Your task to perform on an android device: turn on improve location accuracy Image 0: 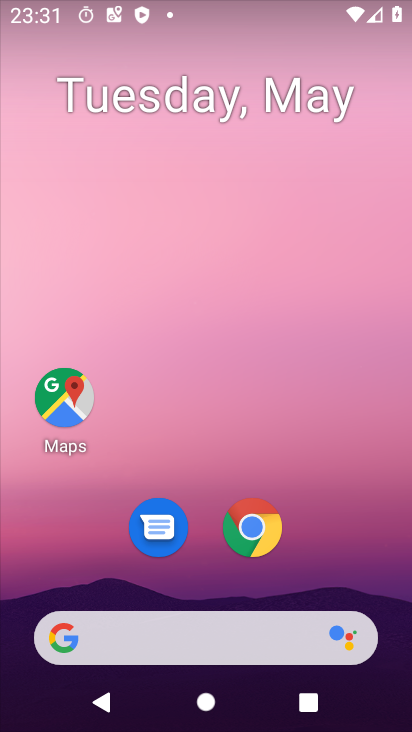
Step 0: drag from (211, 570) to (212, 240)
Your task to perform on an android device: turn on improve location accuracy Image 1: 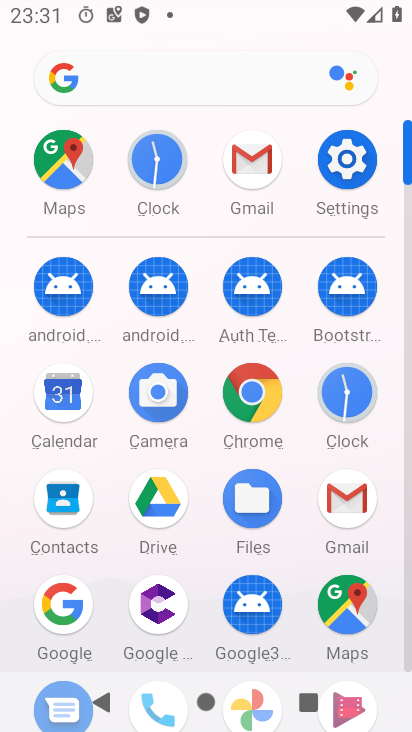
Step 1: click (338, 178)
Your task to perform on an android device: turn on improve location accuracy Image 2: 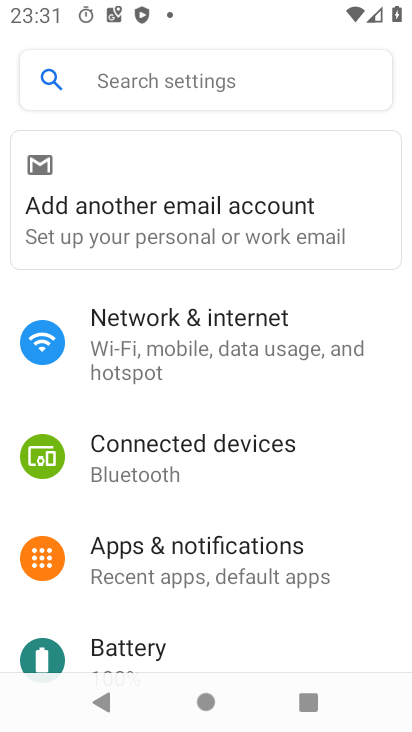
Step 2: drag from (196, 522) to (6, 6)
Your task to perform on an android device: turn on improve location accuracy Image 3: 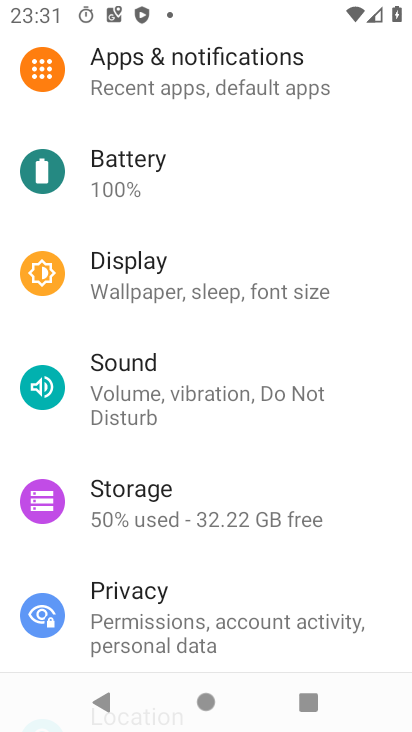
Step 3: drag from (183, 521) to (235, 82)
Your task to perform on an android device: turn on improve location accuracy Image 4: 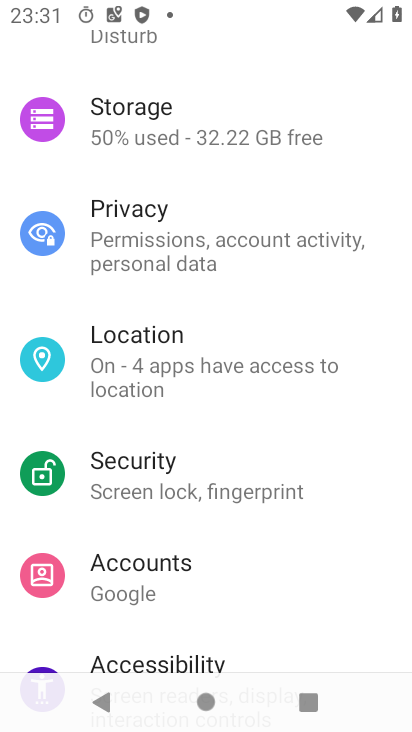
Step 4: drag from (315, 611) to (342, 140)
Your task to perform on an android device: turn on improve location accuracy Image 5: 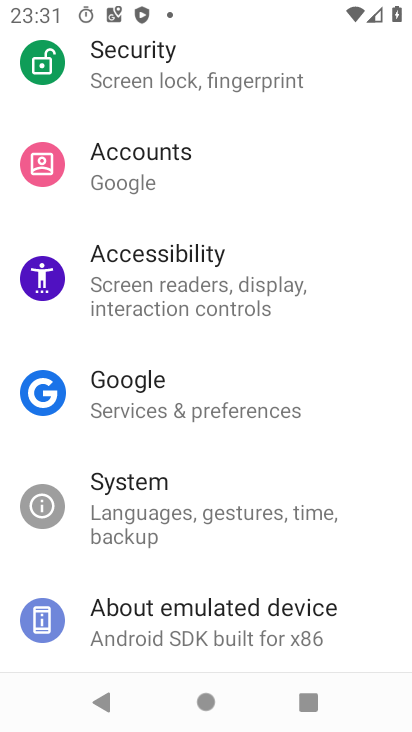
Step 5: drag from (242, 239) to (260, 655)
Your task to perform on an android device: turn on improve location accuracy Image 6: 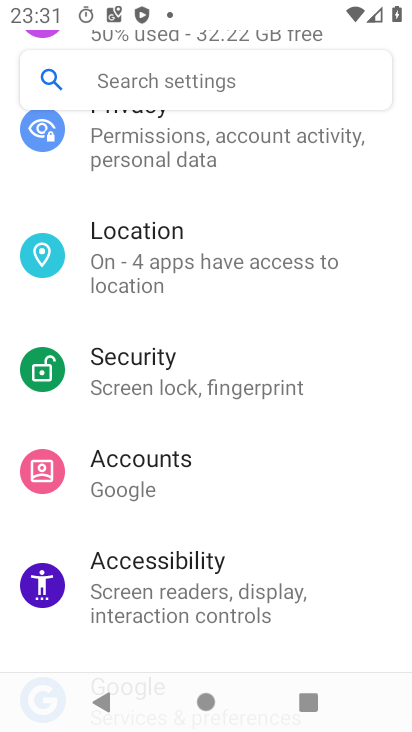
Step 6: drag from (190, 188) to (243, 531)
Your task to perform on an android device: turn on improve location accuracy Image 7: 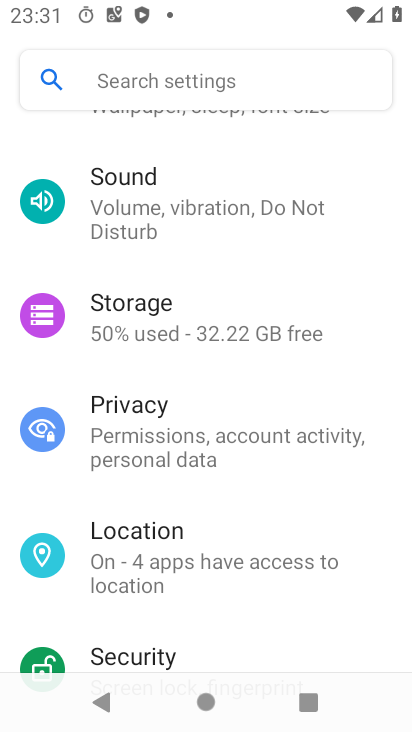
Step 7: drag from (186, 547) to (271, 302)
Your task to perform on an android device: turn on improve location accuracy Image 8: 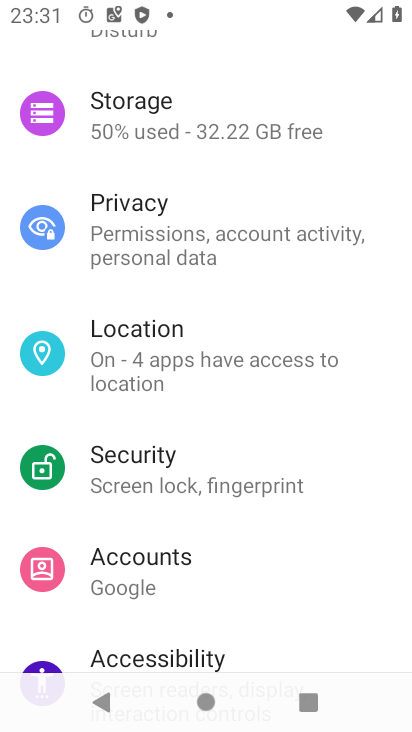
Step 8: drag from (194, 651) to (239, 90)
Your task to perform on an android device: turn on improve location accuracy Image 9: 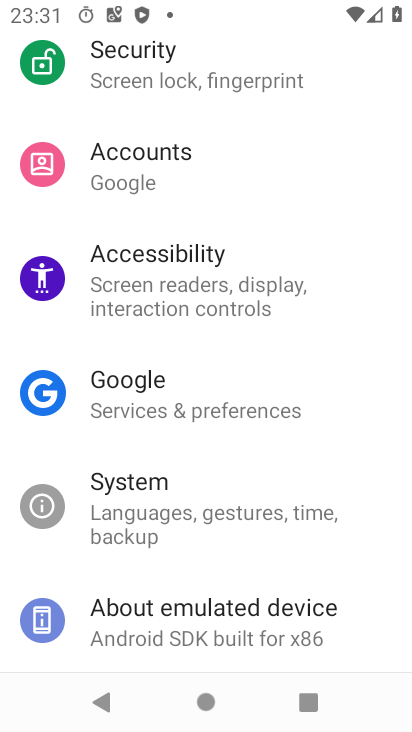
Step 9: drag from (277, 518) to (267, 250)
Your task to perform on an android device: turn on improve location accuracy Image 10: 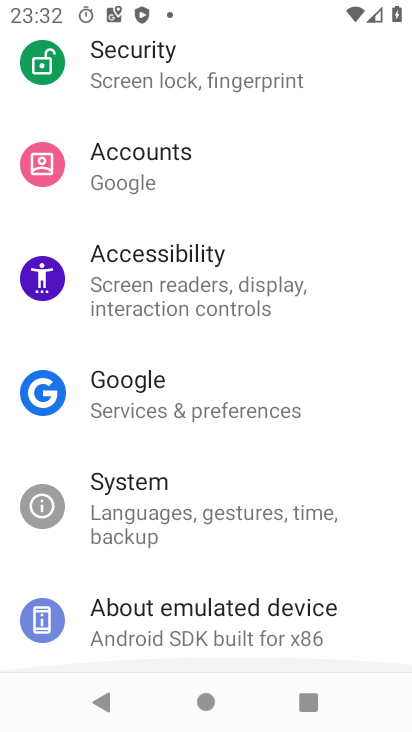
Step 10: drag from (259, 169) to (252, 538)
Your task to perform on an android device: turn on improve location accuracy Image 11: 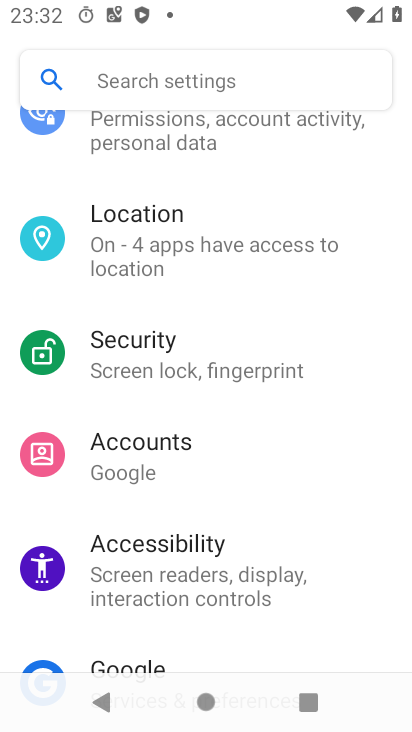
Step 11: click (189, 245)
Your task to perform on an android device: turn on improve location accuracy Image 12: 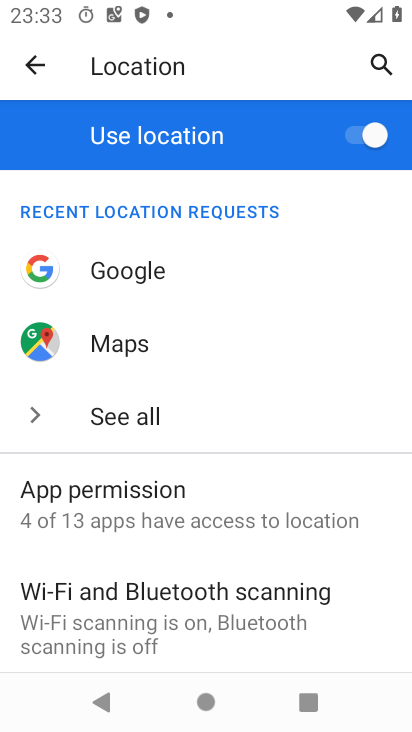
Step 12: drag from (193, 644) to (239, 319)
Your task to perform on an android device: turn on improve location accuracy Image 13: 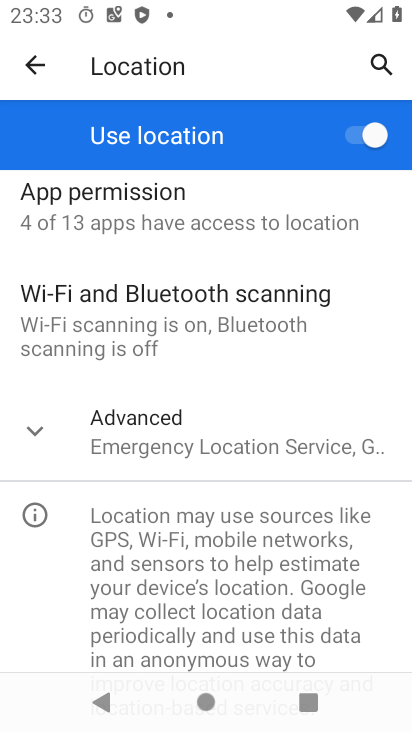
Step 13: drag from (242, 562) to (289, 366)
Your task to perform on an android device: turn on improve location accuracy Image 14: 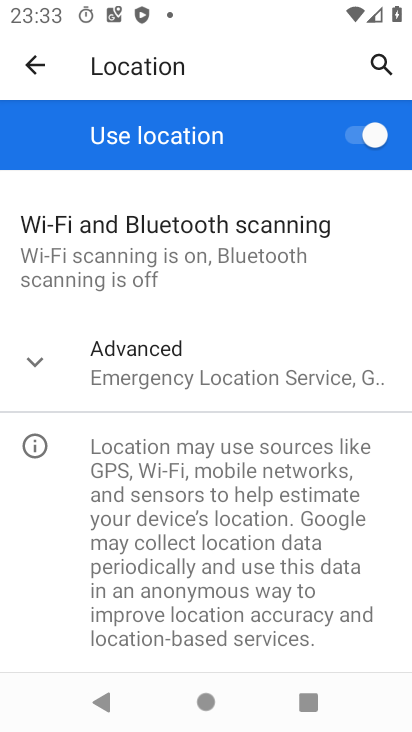
Step 14: click (192, 373)
Your task to perform on an android device: turn on improve location accuracy Image 15: 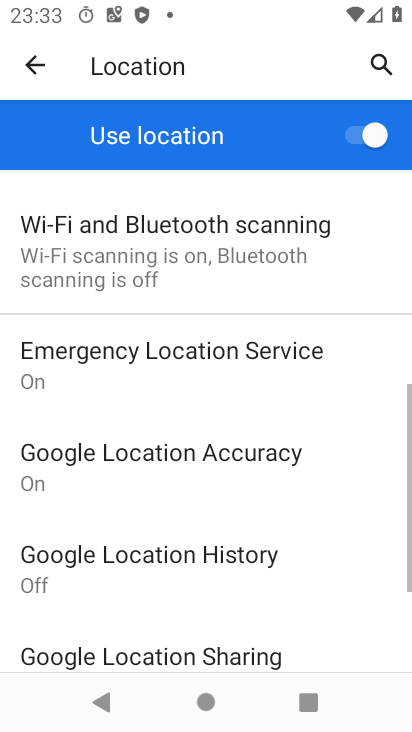
Step 15: drag from (216, 562) to (314, 247)
Your task to perform on an android device: turn on improve location accuracy Image 16: 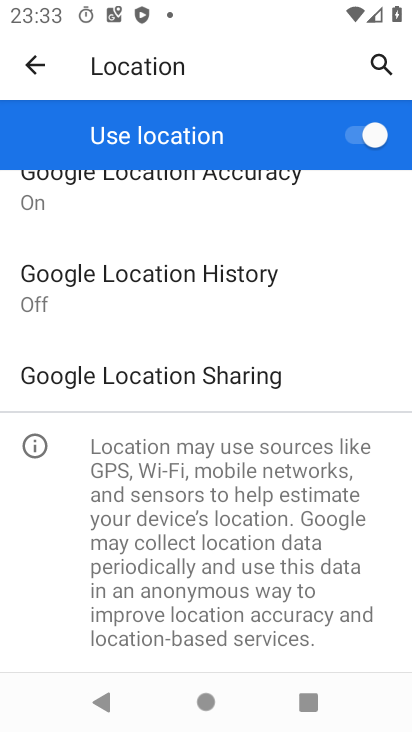
Step 16: drag from (216, 479) to (274, 203)
Your task to perform on an android device: turn on improve location accuracy Image 17: 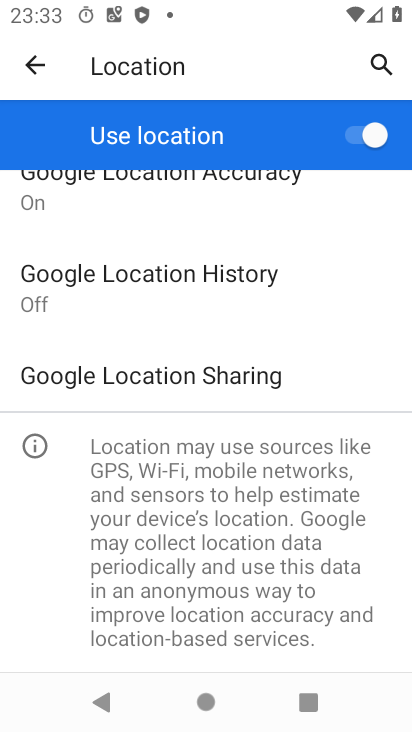
Step 17: drag from (214, 590) to (231, 653)
Your task to perform on an android device: turn on improve location accuracy Image 18: 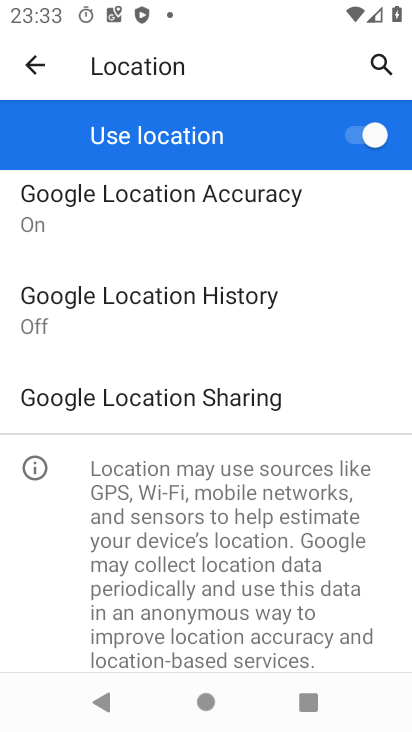
Step 18: click (233, 208)
Your task to perform on an android device: turn on improve location accuracy Image 19: 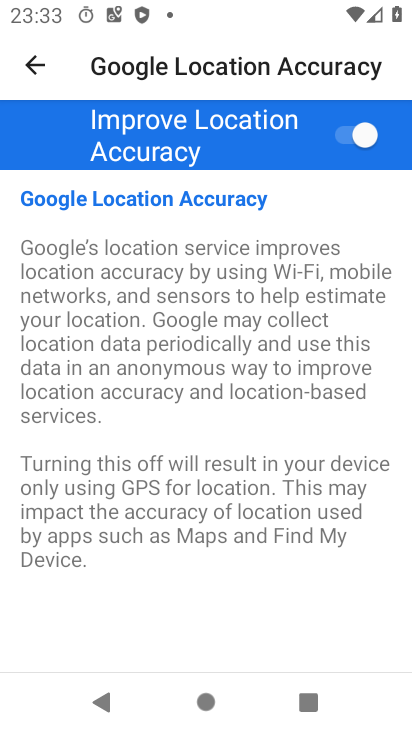
Step 19: task complete